Your task to perform on an android device: find which apps use the phone's location Image 0: 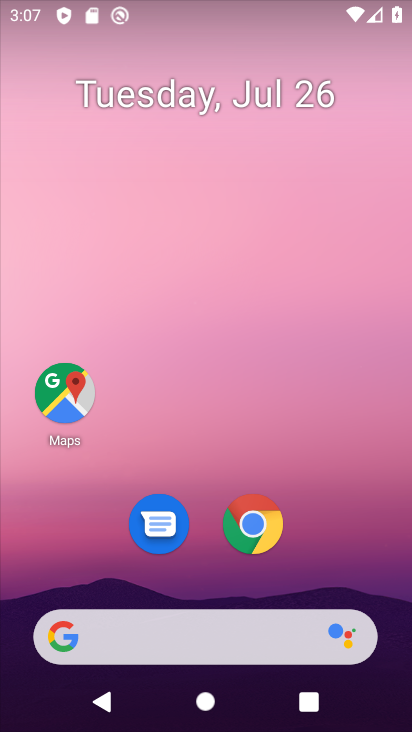
Step 0: drag from (305, 415) to (373, 9)
Your task to perform on an android device: find which apps use the phone's location Image 1: 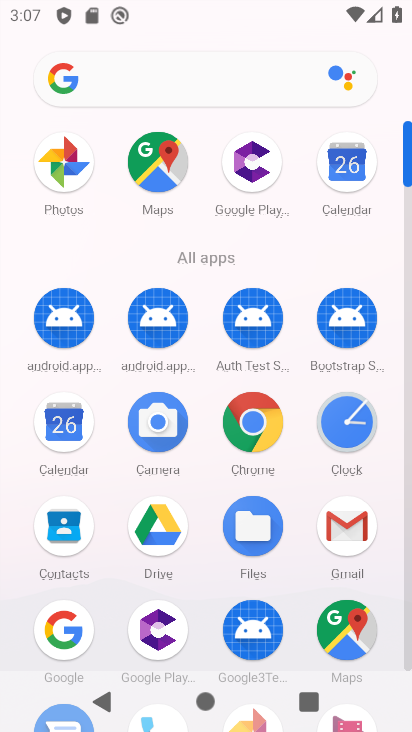
Step 1: drag from (199, 492) to (200, 73)
Your task to perform on an android device: find which apps use the phone's location Image 2: 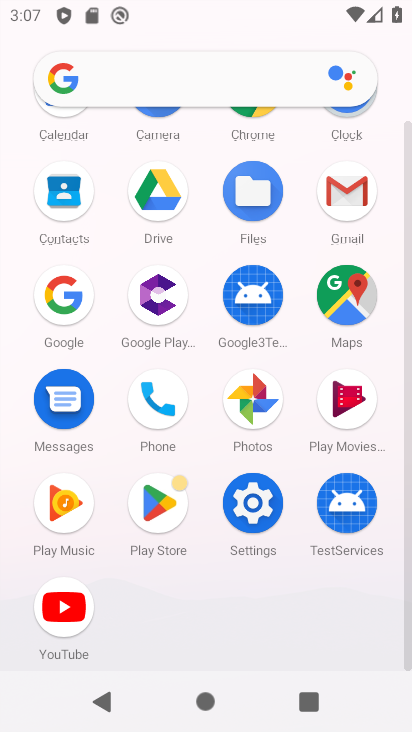
Step 2: click (249, 493)
Your task to perform on an android device: find which apps use the phone's location Image 3: 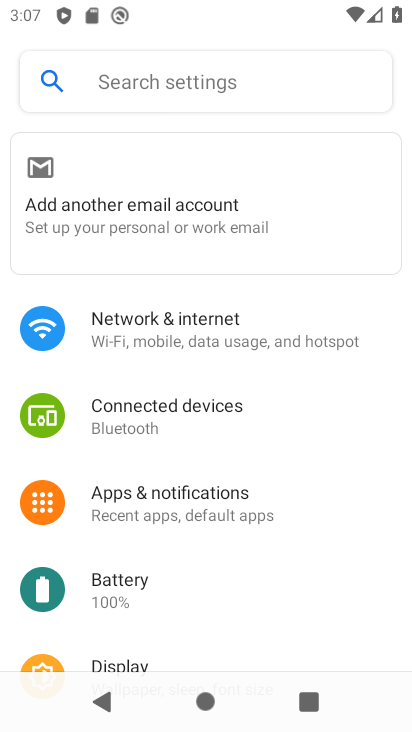
Step 3: drag from (197, 580) to (272, 0)
Your task to perform on an android device: find which apps use the phone's location Image 4: 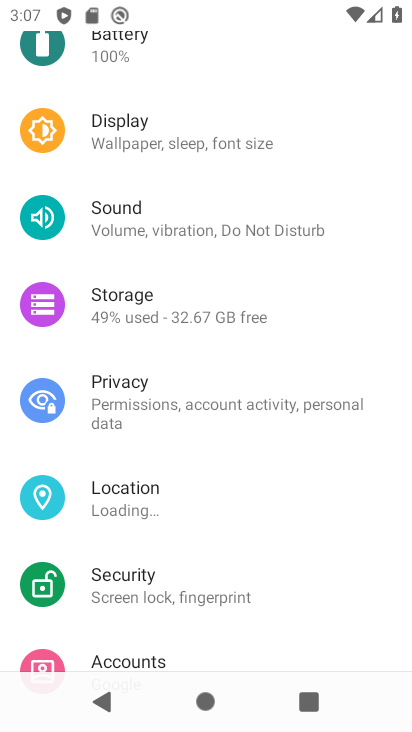
Step 4: click (146, 494)
Your task to perform on an android device: find which apps use the phone's location Image 5: 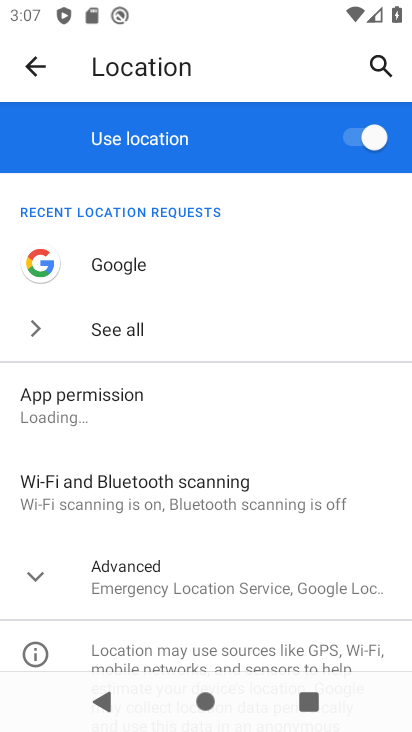
Step 5: drag from (191, 529) to (255, 166)
Your task to perform on an android device: find which apps use the phone's location Image 6: 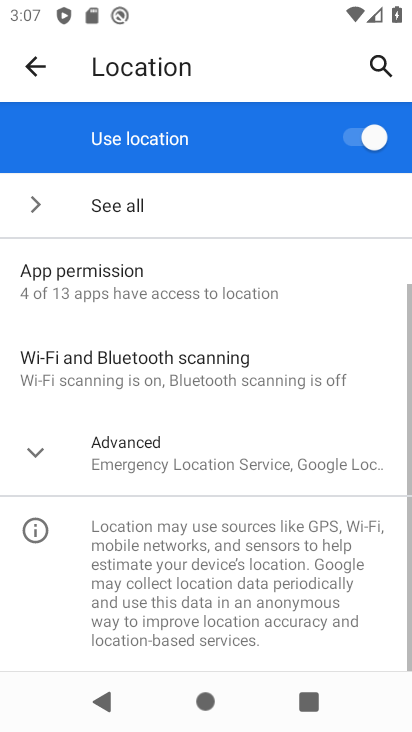
Step 6: click (108, 284)
Your task to perform on an android device: find which apps use the phone's location Image 7: 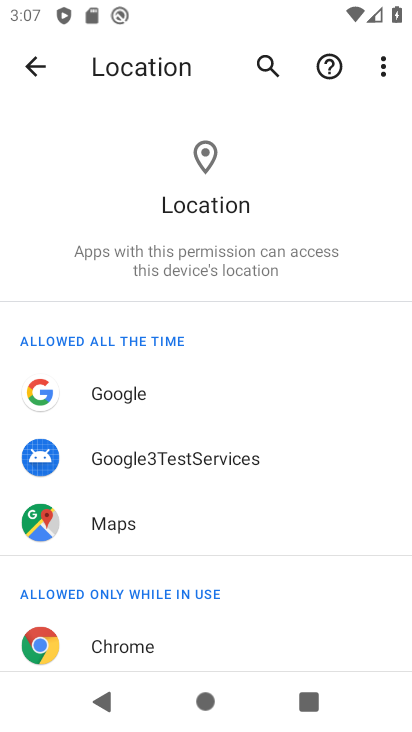
Step 7: task complete